Your task to perform on an android device: Go to privacy settings Image 0: 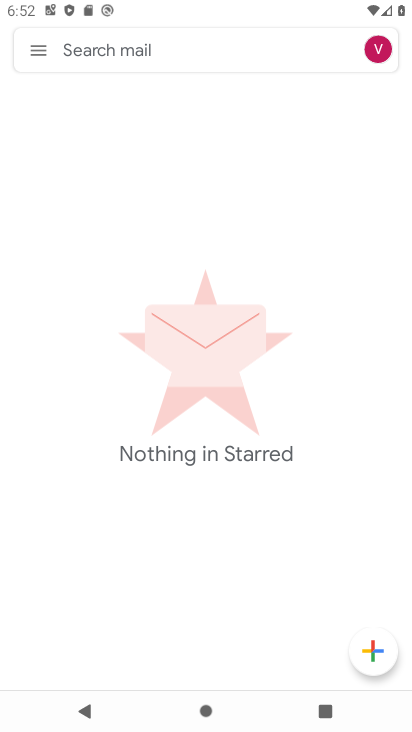
Step 0: press home button
Your task to perform on an android device: Go to privacy settings Image 1: 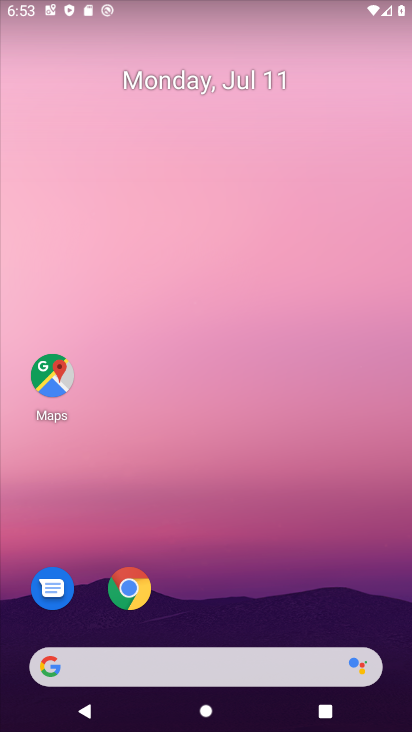
Step 1: drag from (354, 591) to (215, 59)
Your task to perform on an android device: Go to privacy settings Image 2: 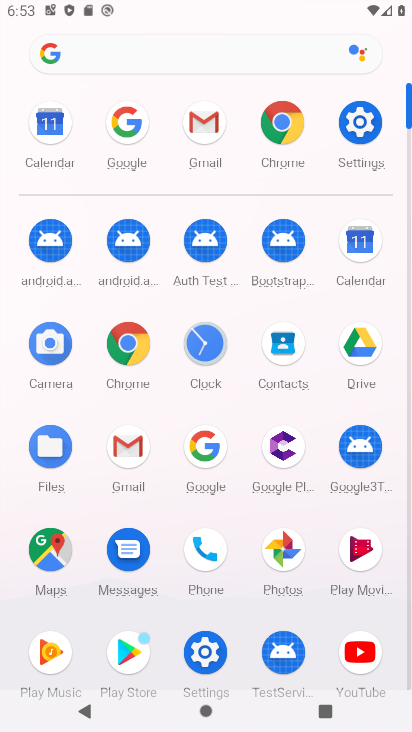
Step 2: click (368, 134)
Your task to perform on an android device: Go to privacy settings Image 3: 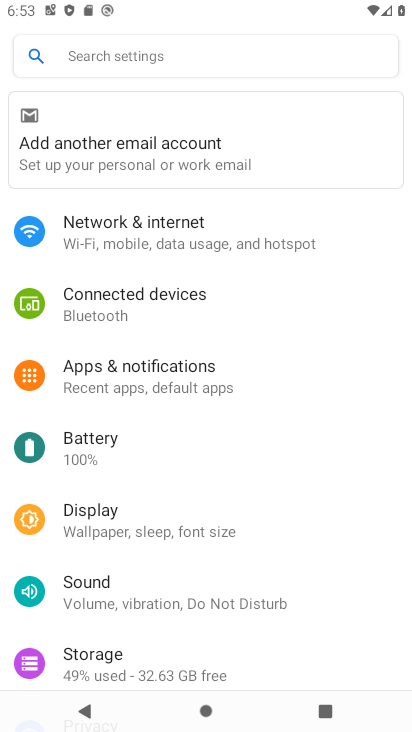
Step 3: drag from (118, 671) to (165, 279)
Your task to perform on an android device: Go to privacy settings Image 4: 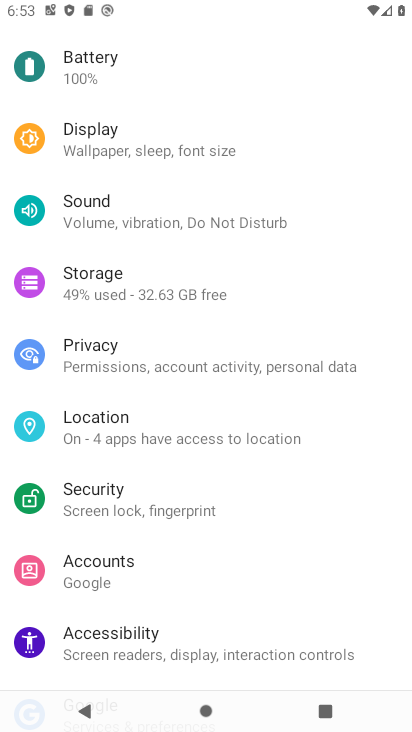
Step 4: click (101, 379)
Your task to perform on an android device: Go to privacy settings Image 5: 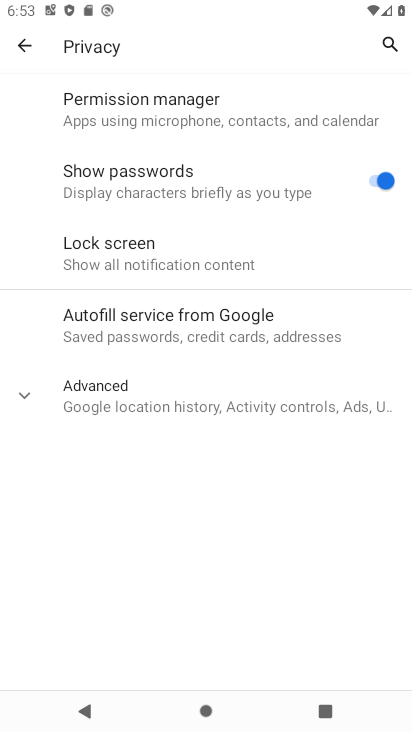
Step 5: task complete